Your task to perform on an android device: turn off javascript in the chrome app Image 0: 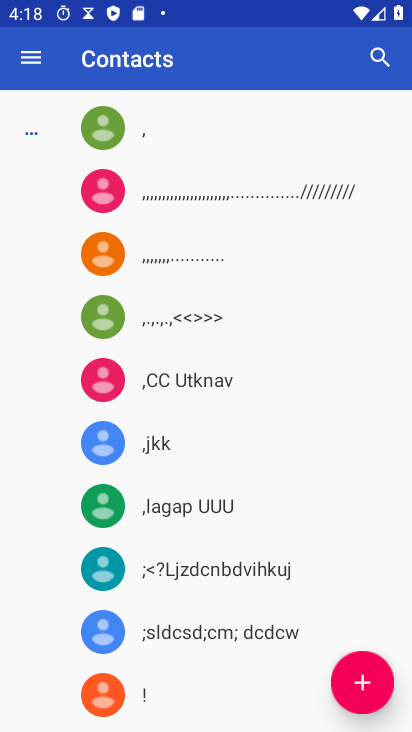
Step 0: press home button
Your task to perform on an android device: turn off javascript in the chrome app Image 1: 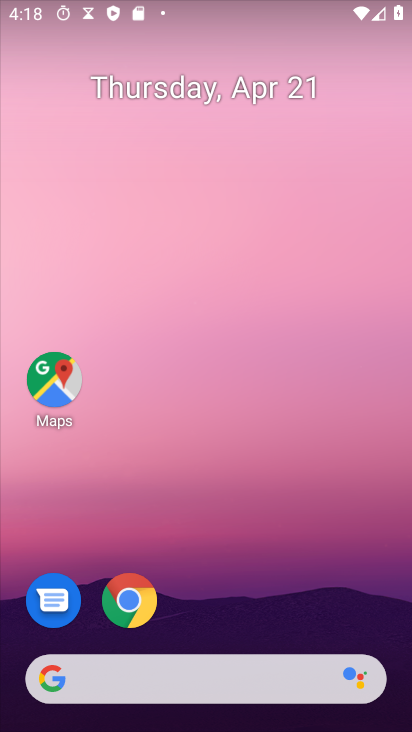
Step 1: click (130, 600)
Your task to perform on an android device: turn off javascript in the chrome app Image 2: 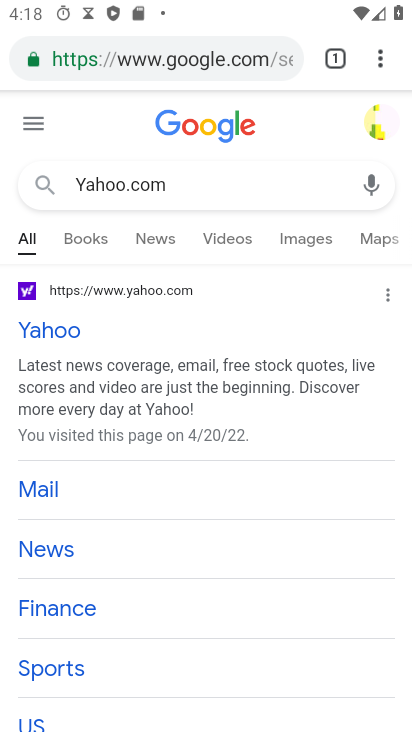
Step 2: click (385, 56)
Your task to perform on an android device: turn off javascript in the chrome app Image 3: 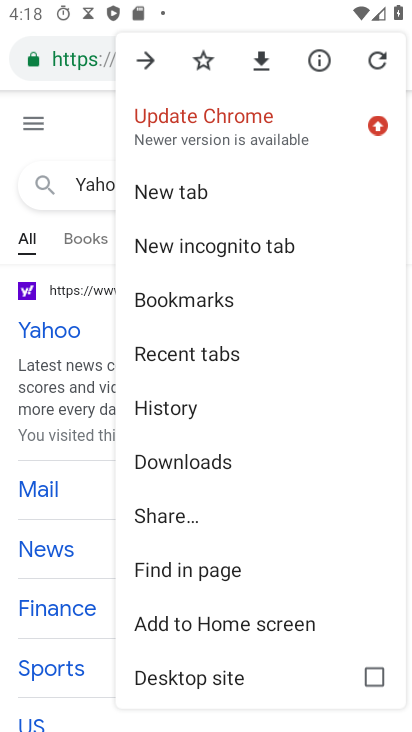
Step 3: drag from (242, 515) to (236, 394)
Your task to perform on an android device: turn off javascript in the chrome app Image 4: 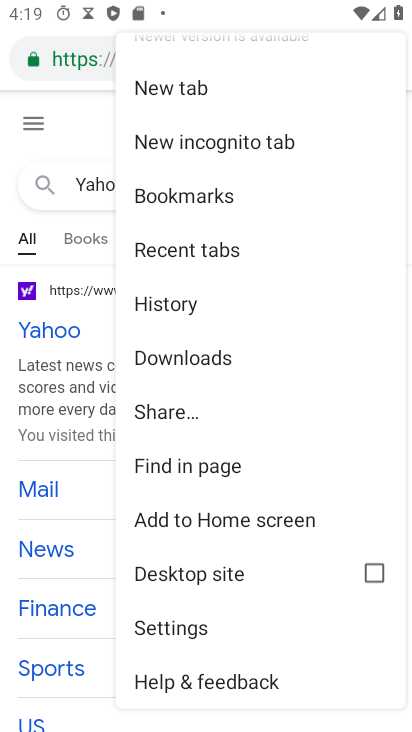
Step 4: drag from (259, 475) to (233, 406)
Your task to perform on an android device: turn off javascript in the chrome app Image 5: 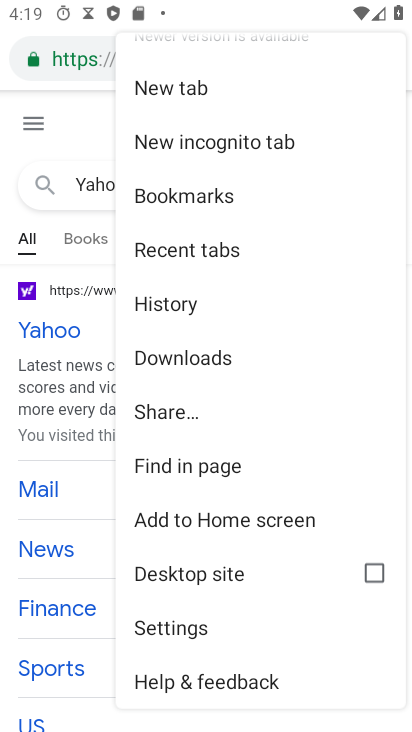
Step 5: click (192, 629)
Your task to perform on an android device: turn off javascript in the chrome app Image 6: 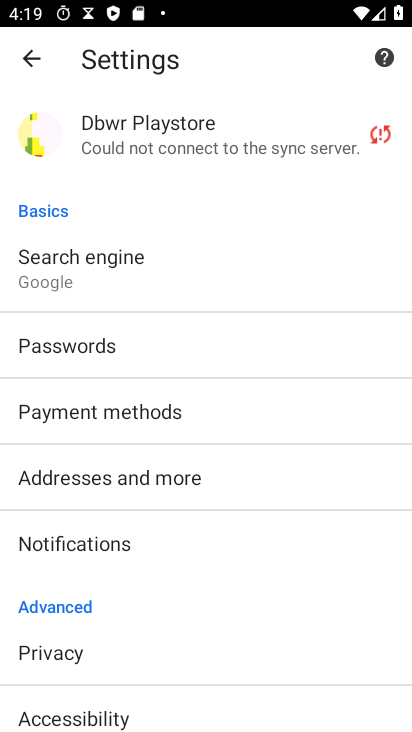
Step 6: drag from (147, 601) to (176, 500)
Your task to perform on an android device: turn off javascript in the chrome app Image 7: 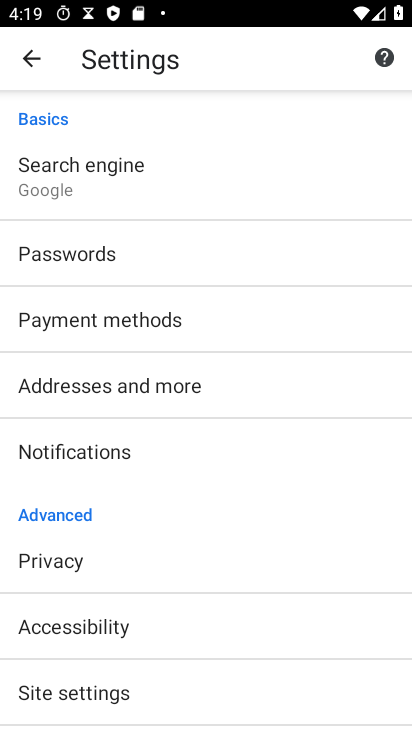
Step 7: drag from (154, 615) to (200, 515)
Your task to perform on an android device: turn off javascript in the chrome app Image 8: 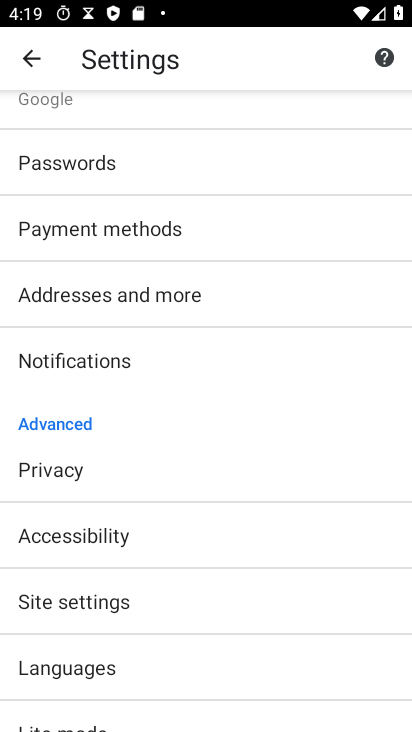
Step 8: drag from (180, 611) to (228, 526)
Your task to perform on an android device: turn off javascript in the chrome app Image 9: 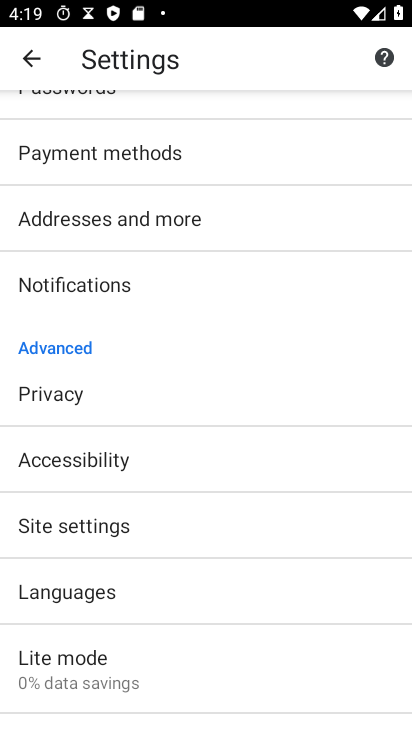
Step 9: click (107, 525)
Your task to perform on an android device: turn off javascript in the chrome app Image 10: 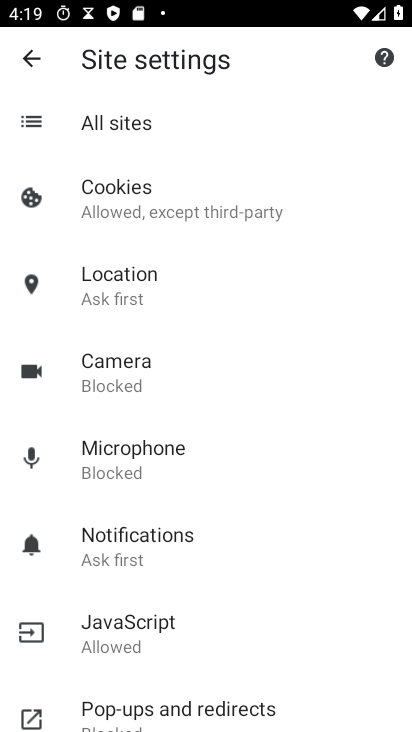
Step 10: click (156, 631)
Your task to perform on an android device: turn off javascript in the chrome app Image 11: 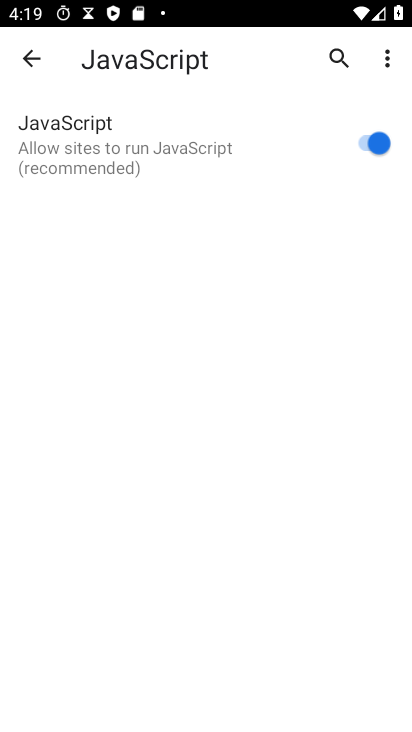
Step 11: click (382, 147)
Your task to perform on an android device: turn off javascript in the chrome app Image 12: 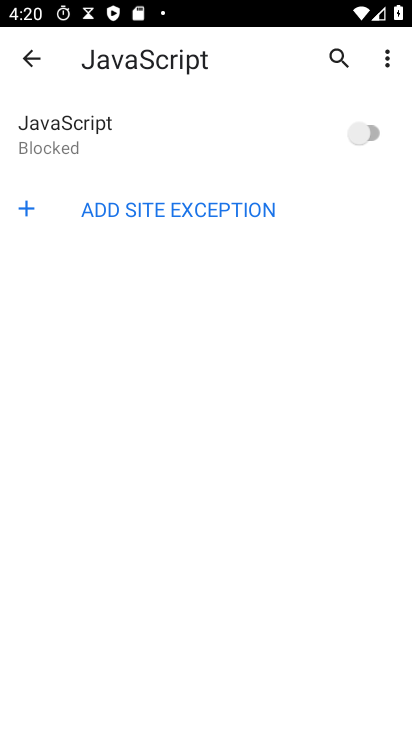
Step 12: task complete